Your task to perform on an android device: set an alarm Image 0: 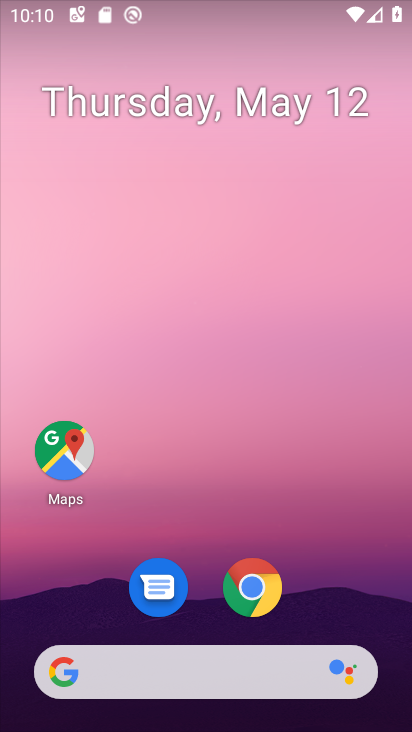
Step 0: drag from (371, 606) to (258, 60)
Your task to perform on an android device: set an alarm Image 1: 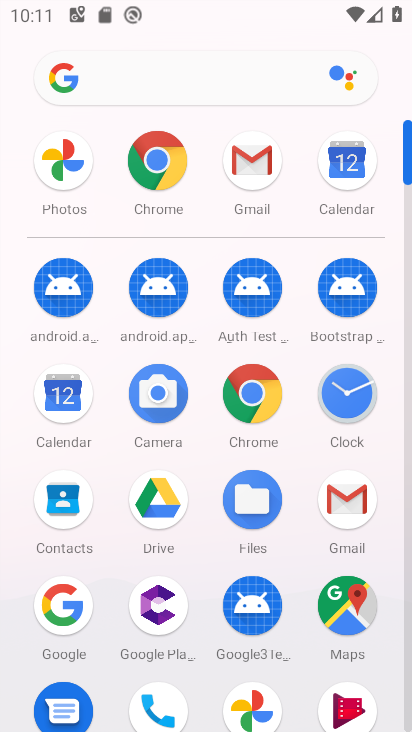
Step 1: click (343, 392)
Your task to perform on an android device: set an alarm Image 2: 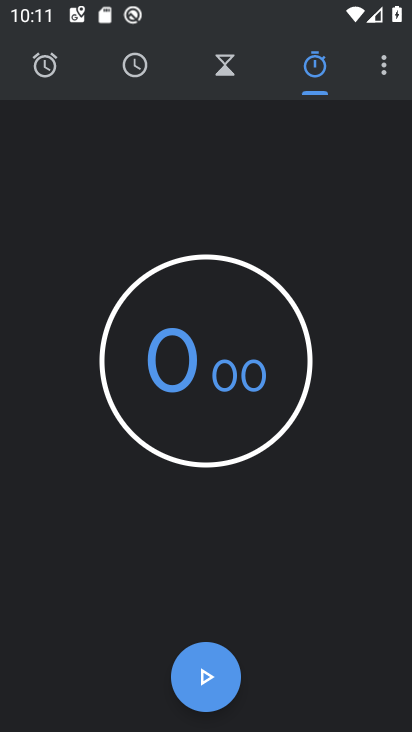
Step 2: click (48, 61)
Your task to perform on an android device: set an alarm Image 3: 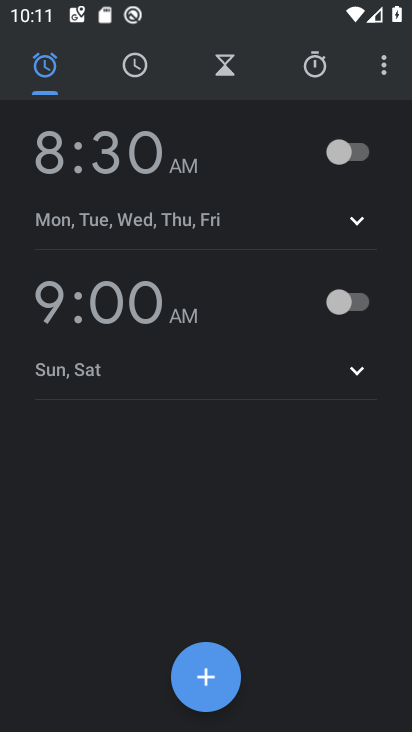
Step 3: click (368, 143)
Your task to perform on an android device: set an alarm Image 4: 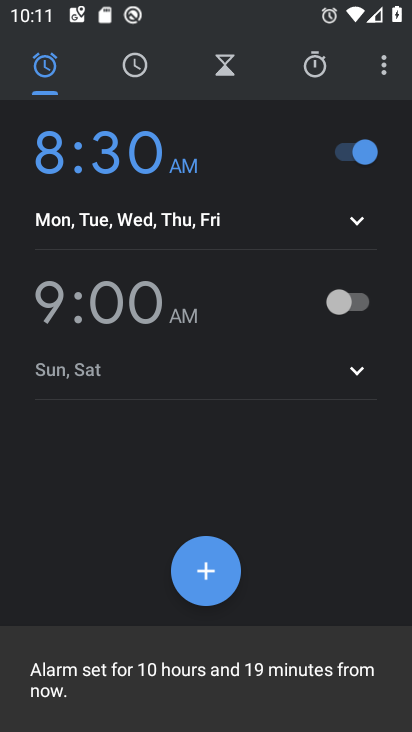
Step 4: task complete